Your task to perform on an android device: Go to Maps Image 0: 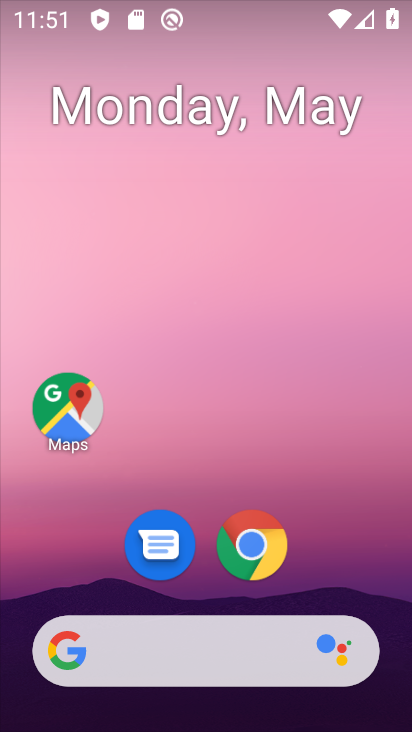
Step 0: click (67, 418)
Your task to perform on an android device: Go to Maps Image 1: 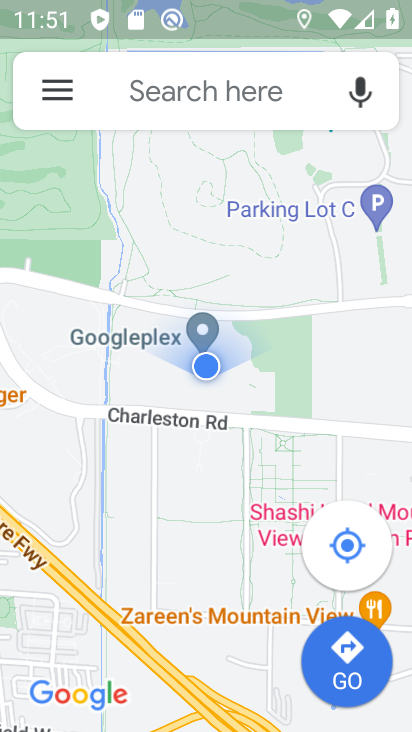
Step 1: task complete